Your task to perform on an android device: set the timer Image 0: 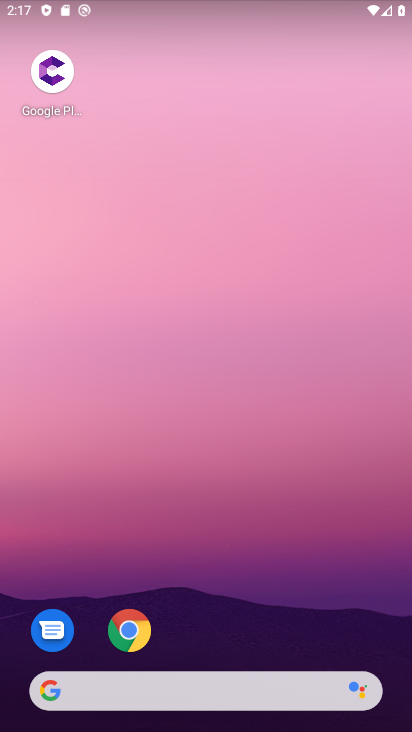
Step 0: press home button
Your task to perform on an android device: set the timer Image 1: 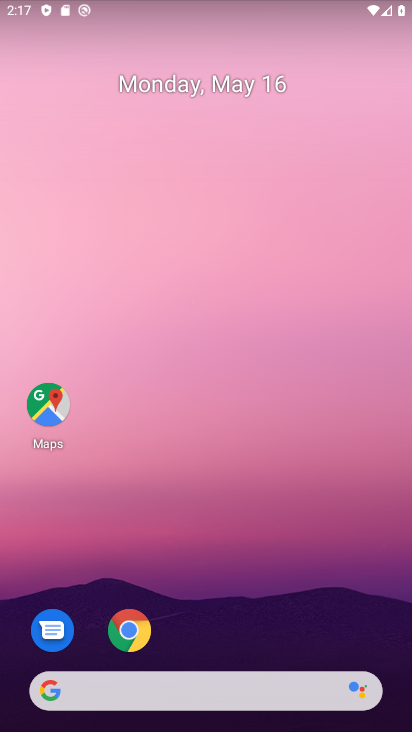
Step 1: drag from (225, 630) to (213, 135)
Your task to perform on an android device: set the timer Image 2: 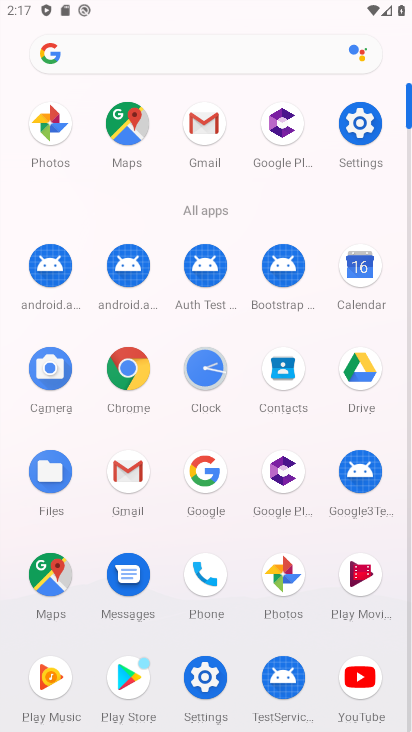
Step 2: click (202, 366)
Your task to perform on an android device: set the timer Image 3: 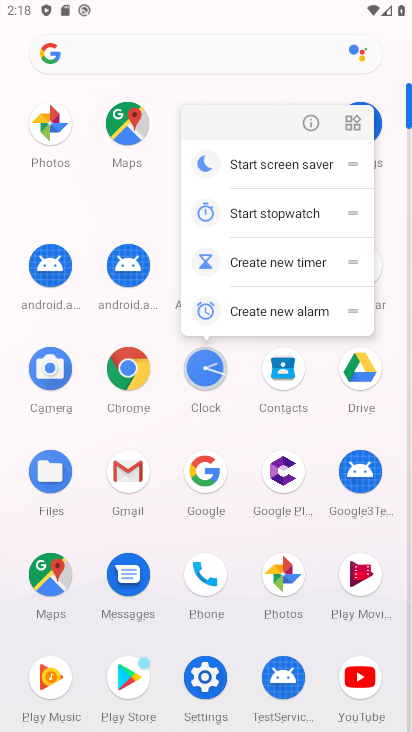
Step 3: click (208, 372)
Your task to perform on an android device: set the timer Image 4: 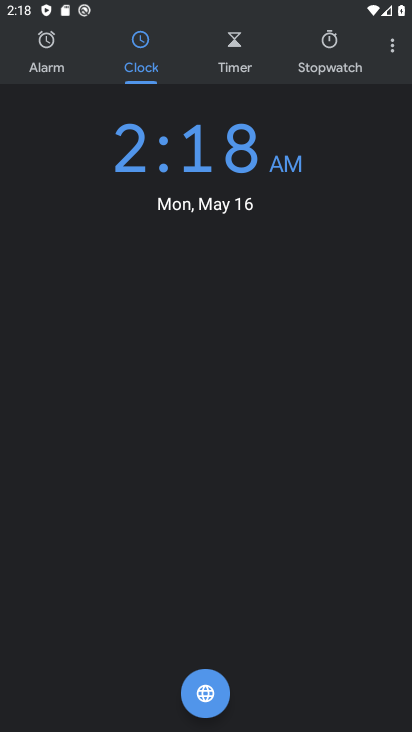
Step 4: click (231, 31)
Your task to perform on an android device: set the timer Image 5: 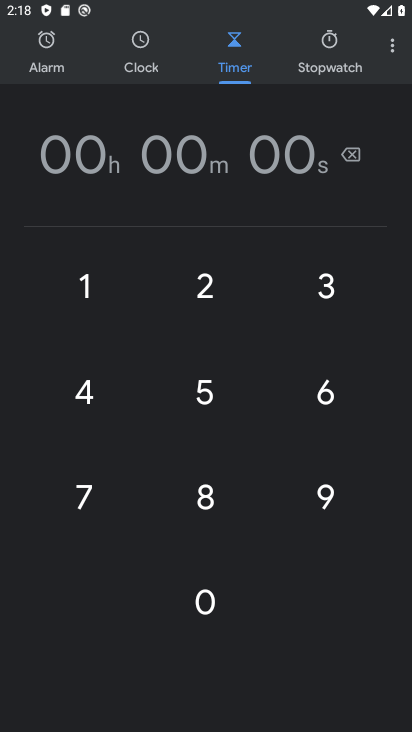
Step 5: click (93, 283)
Your task to perform on an android device: set the timer Image 6: 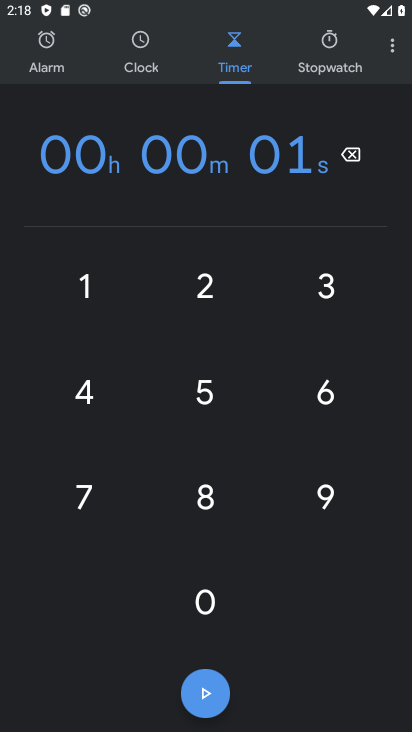
Step 6: click (196, 594)
Your task to perform on an android device: set the timer Image 7: 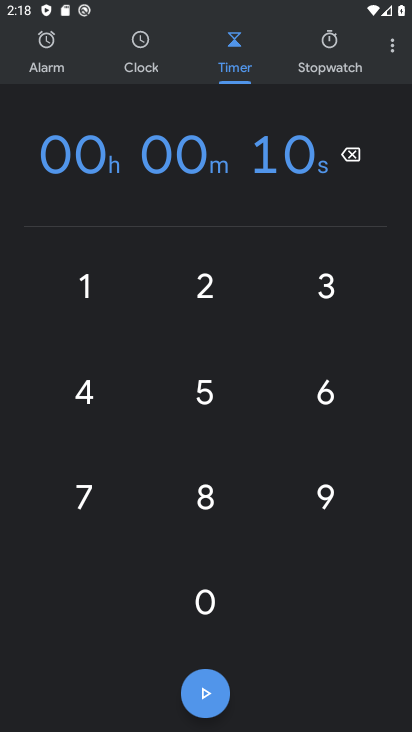
Step 7: click (204, 598)
Your task to perform on an android device: set the timer Image 8: 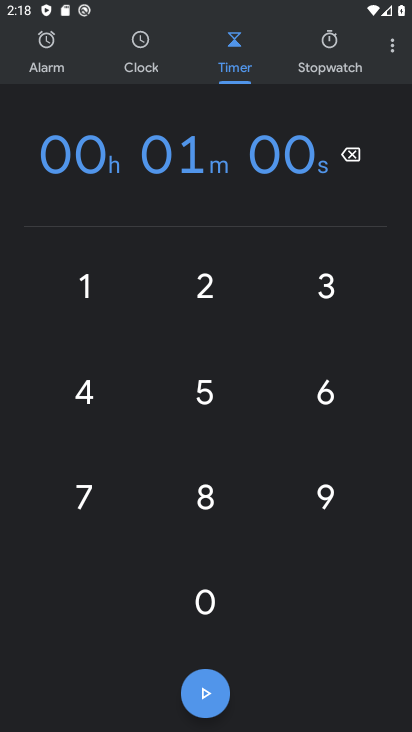
Step 8: click (204, 598)
Your task to perform on an android device: set the timer Image 9: 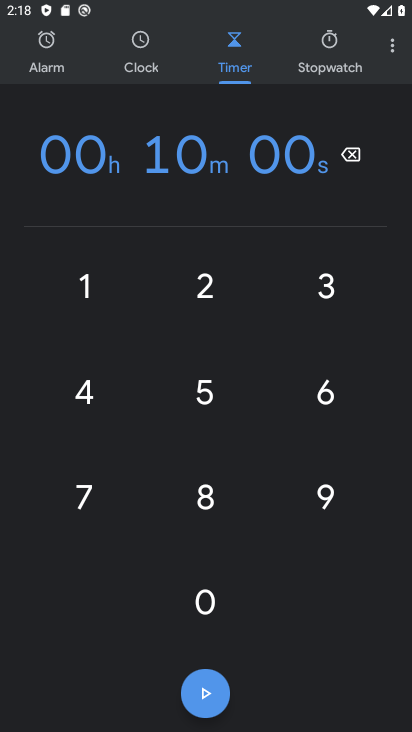
Step 9: click (205, 690)
Your task to perform on an android device: set the timer Image 10: 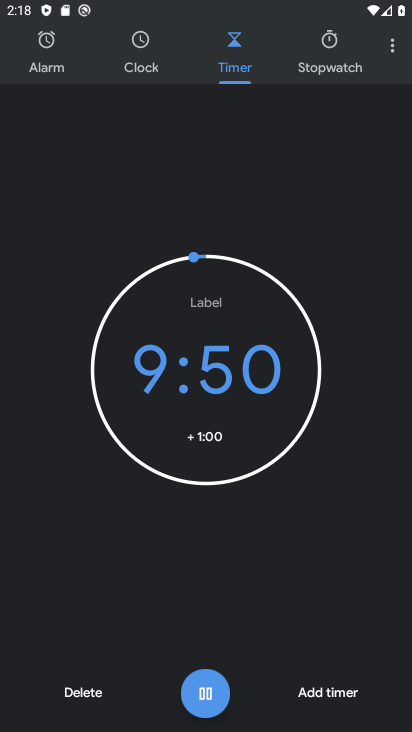
Step 10: task complete